Your task to perform on an android device: check storage Image 0: 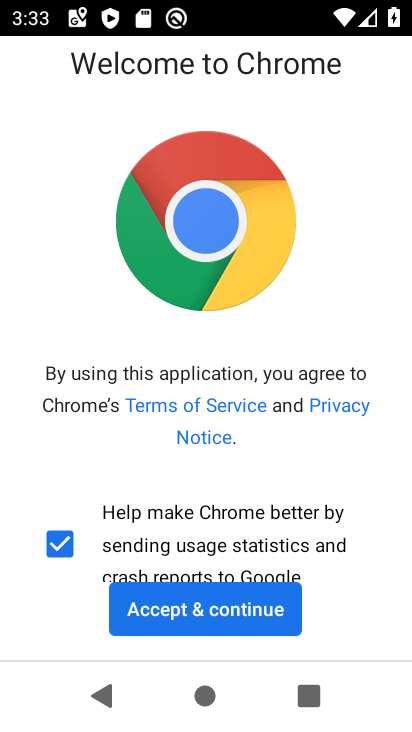
Step 0: click (406, 545)
Your task to perform on an android device: check storage Image 1: 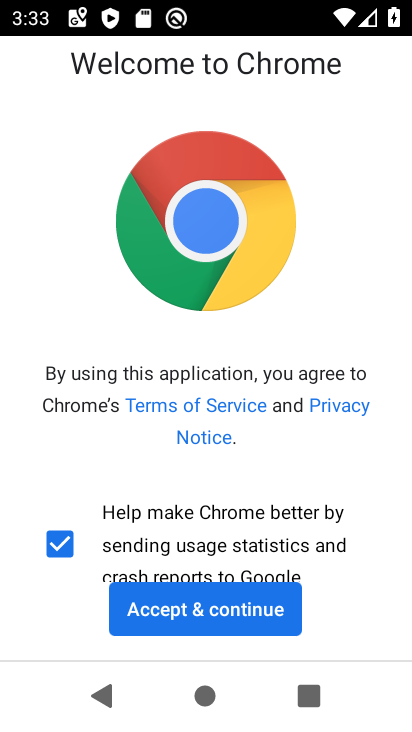
Step 1: press home button
Your task to perform on an android device: check storage Image 2: 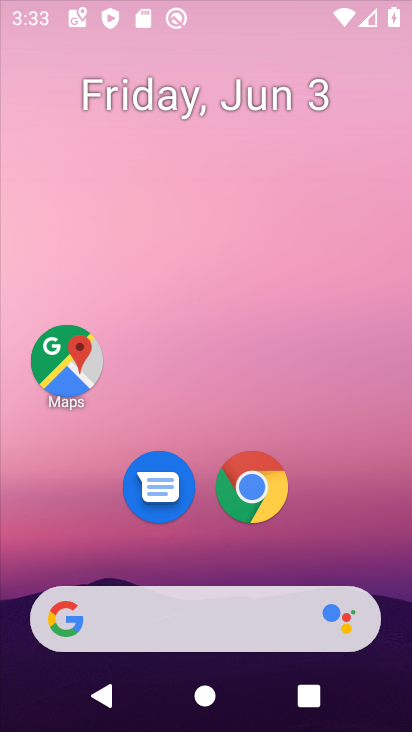
Step 2: drag from (259, 426) to (312, 54)
Your task to perform on an android device: check storage Image 3: 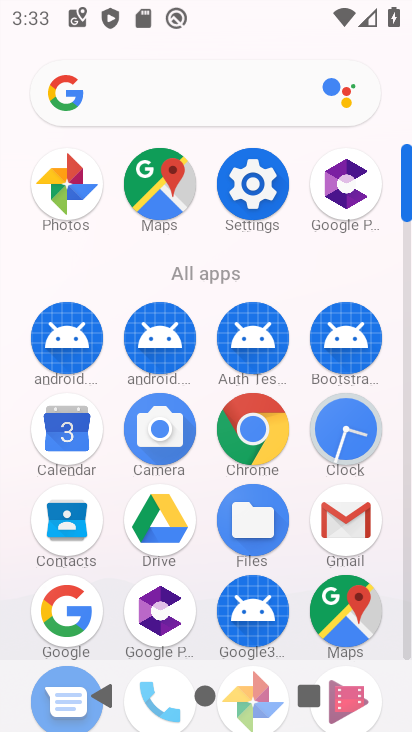
Step 3: click (251, 185)
Your task to perform on an android device: check storage Image 4: 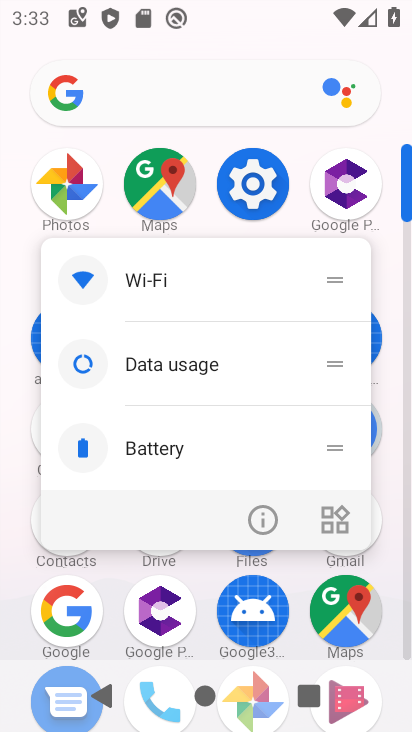
Step 4: click (256, 512)
Your task to perform on an android device: check storage Image 5: 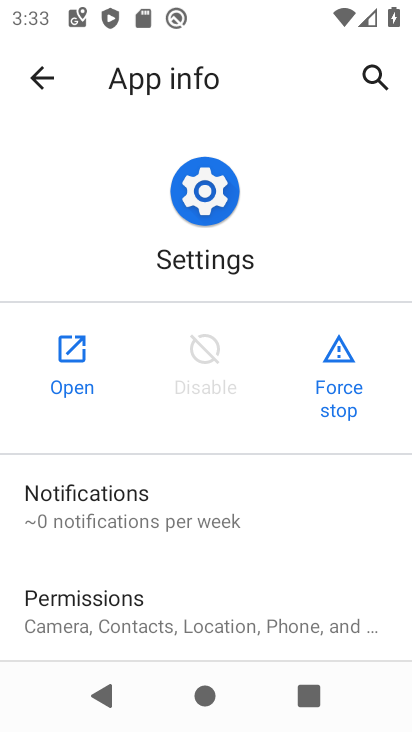
Step 5: click (70, 355)
Your task to perform on an android device: check storage Image 6: 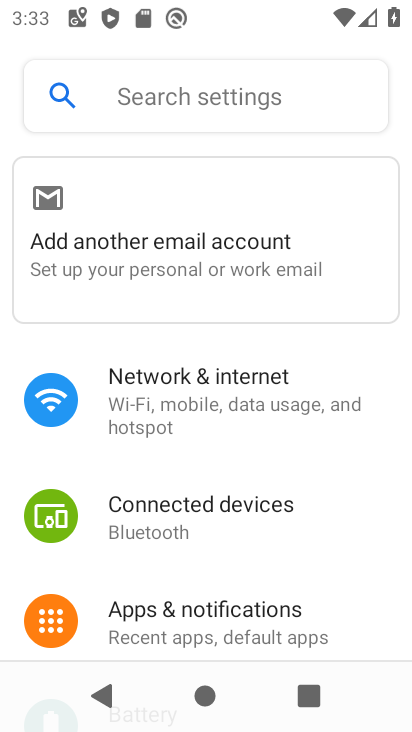
Step 6: drag from (212, 553) to (323, 63)
Your task to perform on an android device: check storage Image 7: 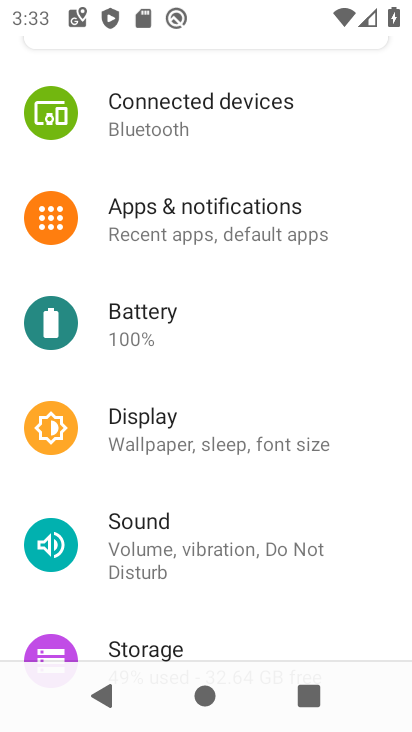
Step 7: drag from (225, 453) to (293, 144)
Your task to perform on an android device: check storage Image 8: 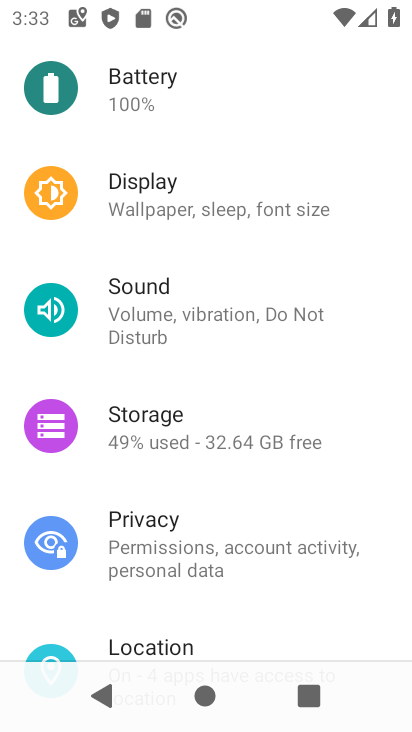
Step 8: click (198, 419)
Your task to perform on an android device: check storage Image 9: 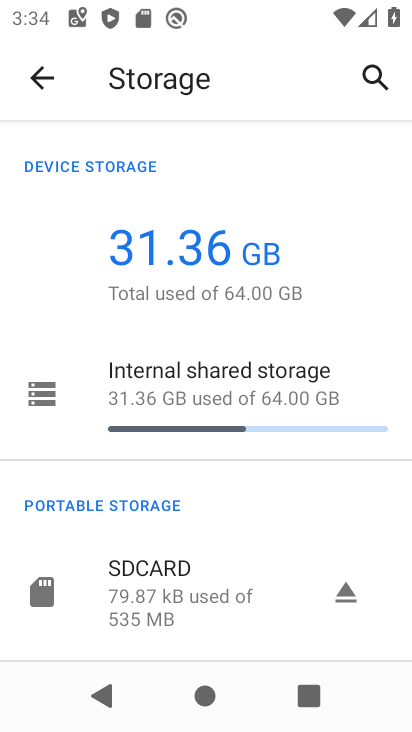
Step 9: task complete